Your task to perform on an android device: turn on location history Image 0: 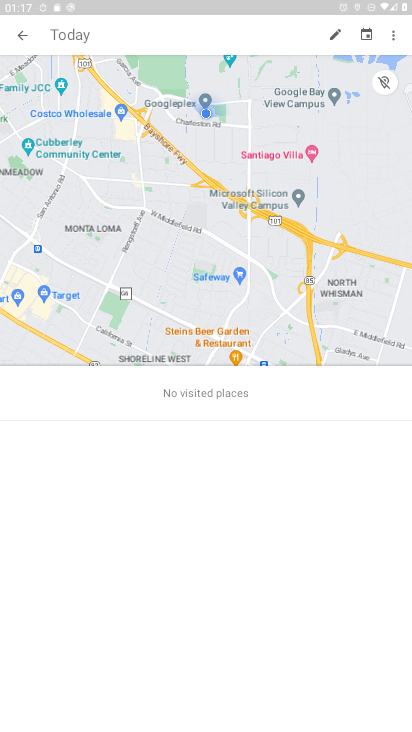
Step 0: press home button
Your task to perform on an android device: turn on location history Image 1: 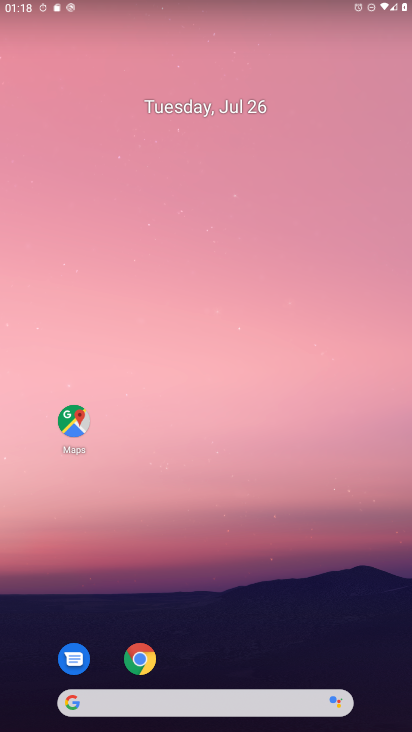
Step 1: click (58, 408)
Your task to perform on an android device: turn on location history Image 2: 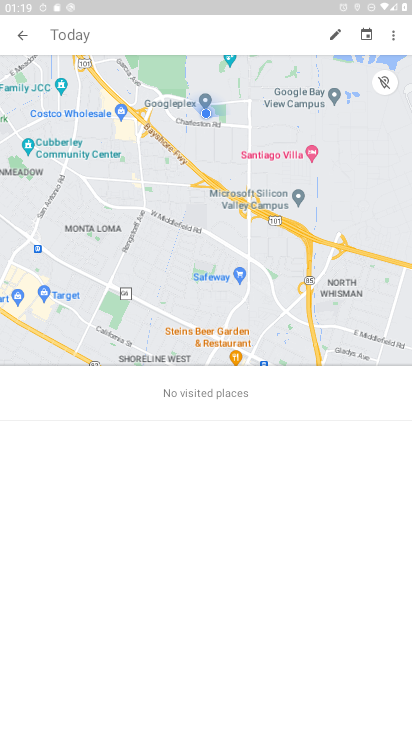
Step 2: click (401, 38)
Your task to perform on an android device: turn on location history Image 3: 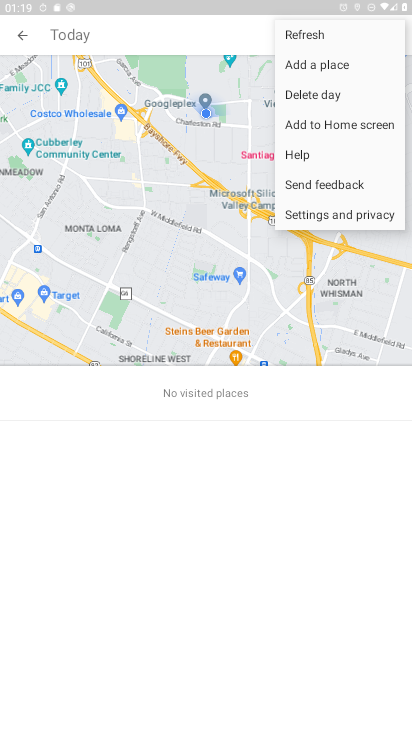
Step 3: click (313, 206)
Your task to perform on an android device: turn on location history Image 4: 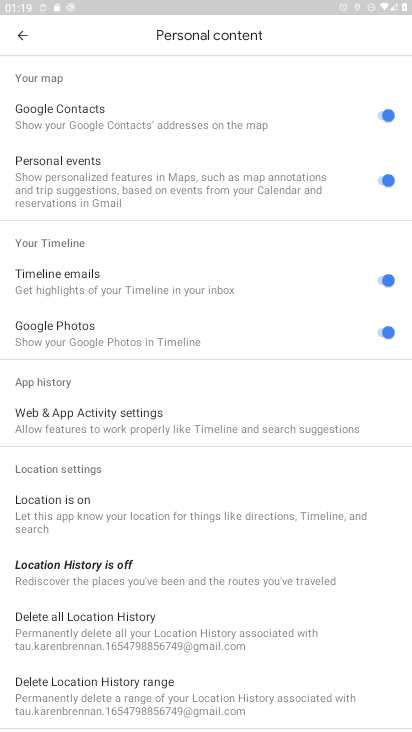
Step 4: click (108, 561)
Your task to perform on an android device: turn on location history Image 5: 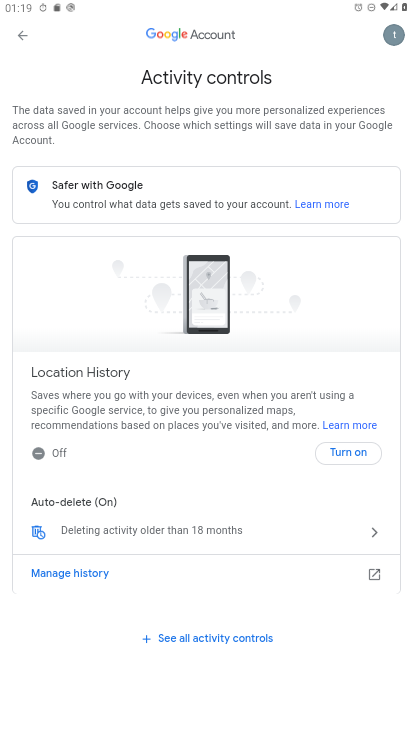
Step 5: click (349, 452)
Your task to perform on an android device: turn on location history Image 6: 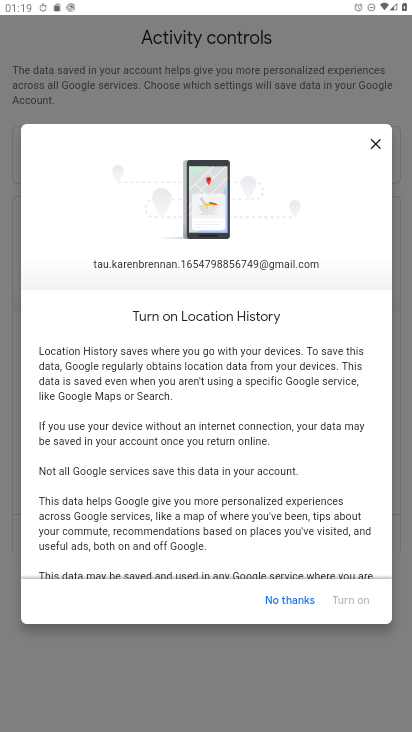
Step 6: drag from (288, 562) to (292, 174)
Your task to perform on an android device: turn on location history Image 7: 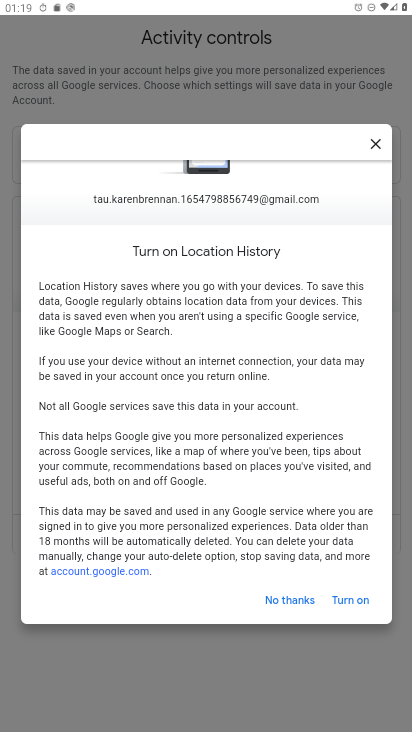
Step 7: click (350, 596)
Your task to perform on an android device: turn on location history Image 8: 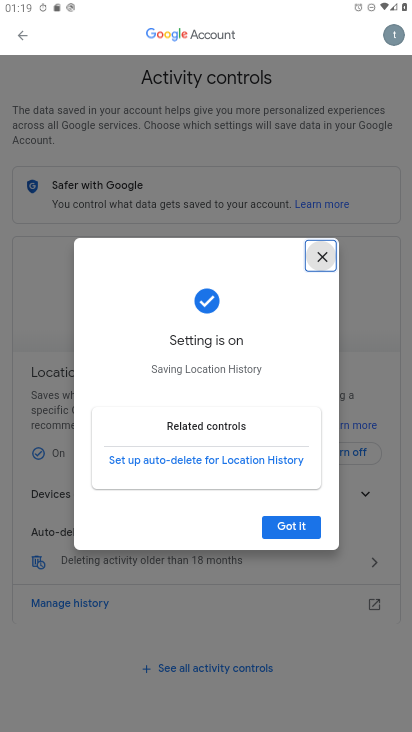
Step 8: click (298, 518)
Your task to perform on an android device: turn on location history Image 9: 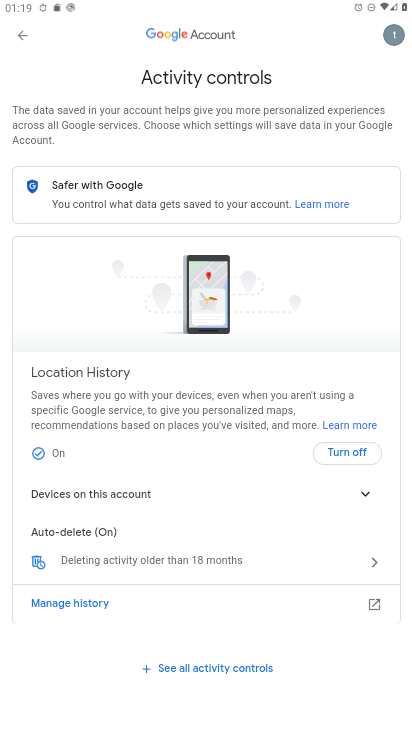
Step 9: task complete